Your task to perform on an android device: turn off notifications in google photos Image 0: 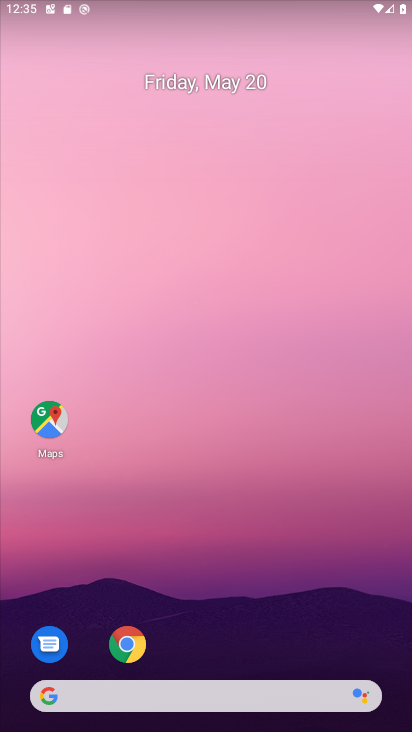
Step 0: click (130, 644)
Your task to perform on an android device: turn off notifications in google photos Image 1: 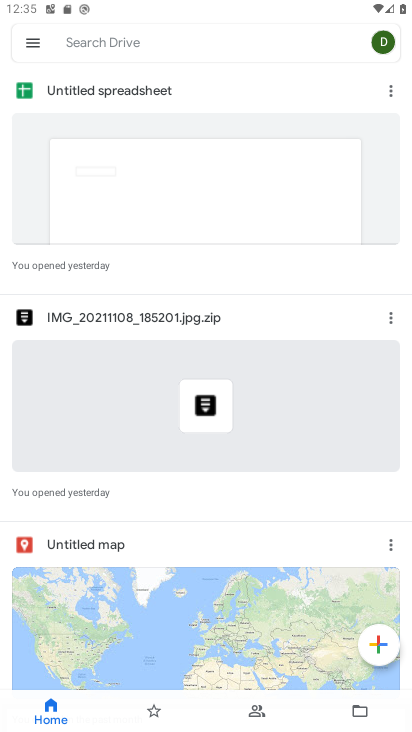
Step 1: press home button
Your task to perform on an android device: turn off notifications in google photos Image 2: 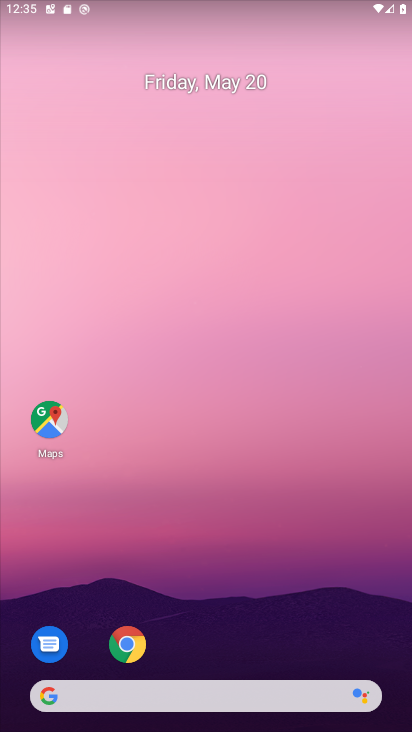
Step 2: drag from (146, 585) to (131, 342)
Your task to perform on an android device: turn off notifications in google photos Image 3: 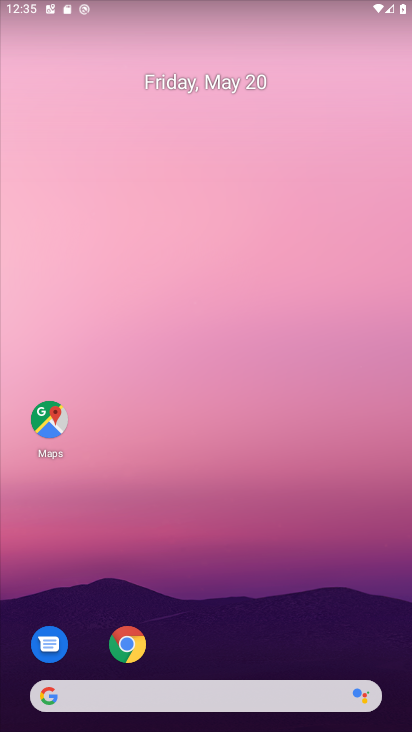
Step 3: drag from (98, 674) to (68, 367)
Your task to perform on an android device: turn off notifications in google photos Image 4: 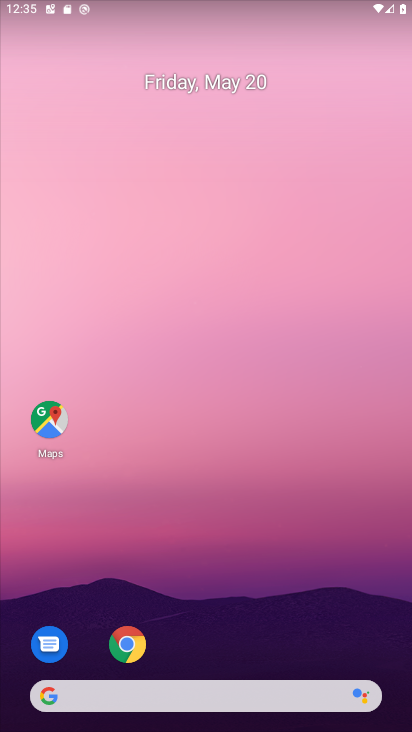
Step 4: drag from (153, 676) to (153, 234)
Your task to perform on an android device: turn off notifications in google photos Image 5: 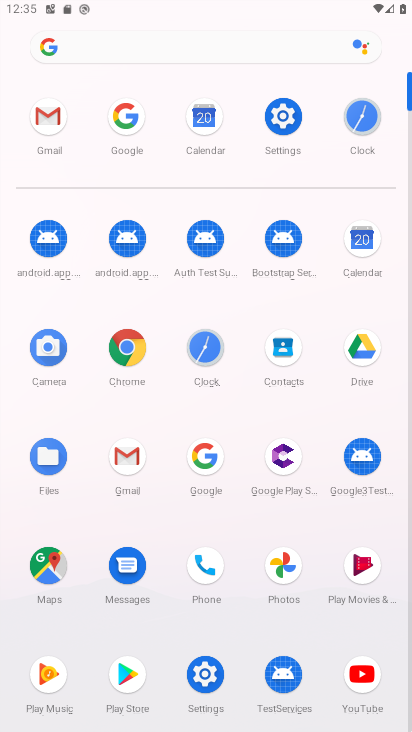
Step 5: click (289, 559)
Your task to perform on an android device: turn off notifications in google photos Image 6: 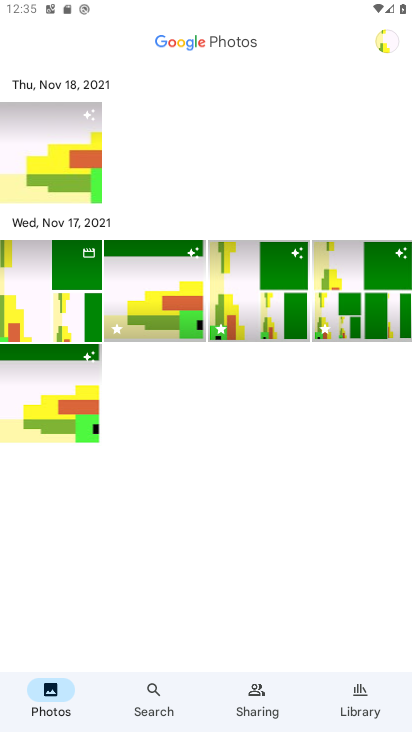
Step 6: click (390, 37)
Your task to perform on an android device: turn off notifications in google photos Image 7: 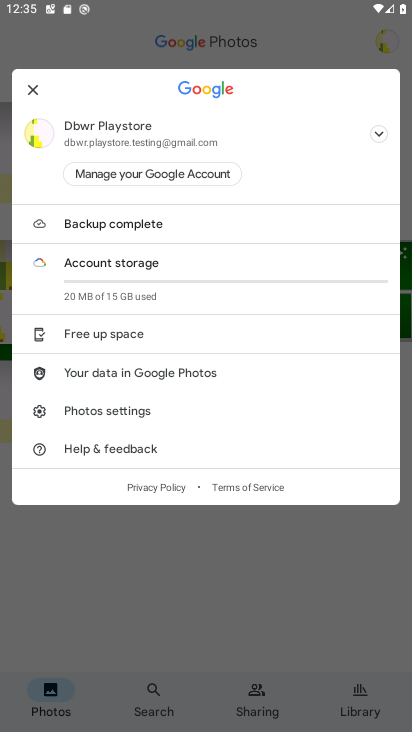
Step 7: click (97, 411)
Your task to perform on an android device: turn off notifications in google photos Image 8: 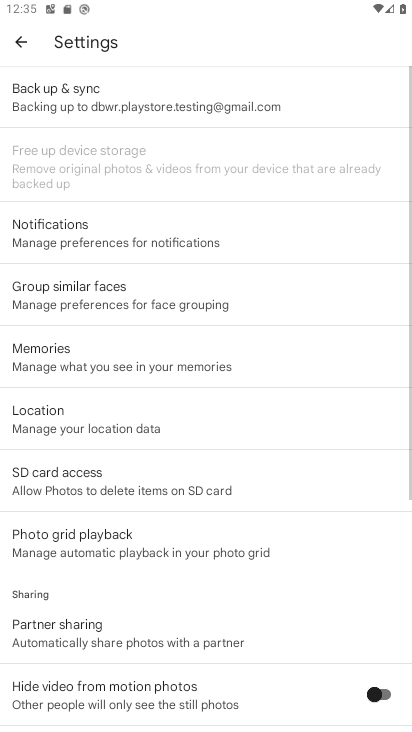
Step 8: click (79, 110)
Your task to perform on an android device: turn off notifications in google photos Image 9: 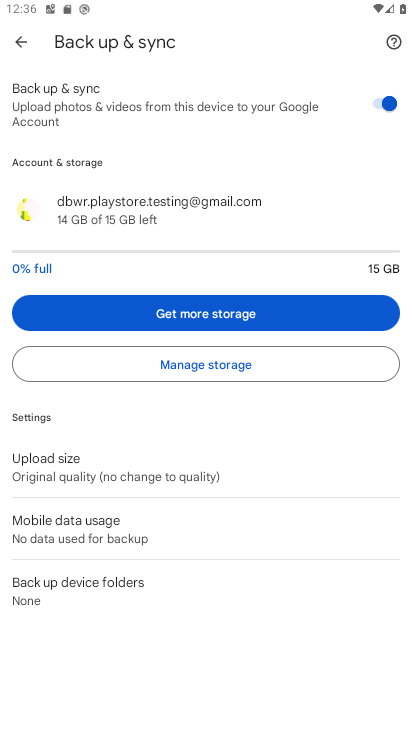
Step 9: click (16, 41)
Your task to perform on an android device: turn off notifications in google photos Image 10: 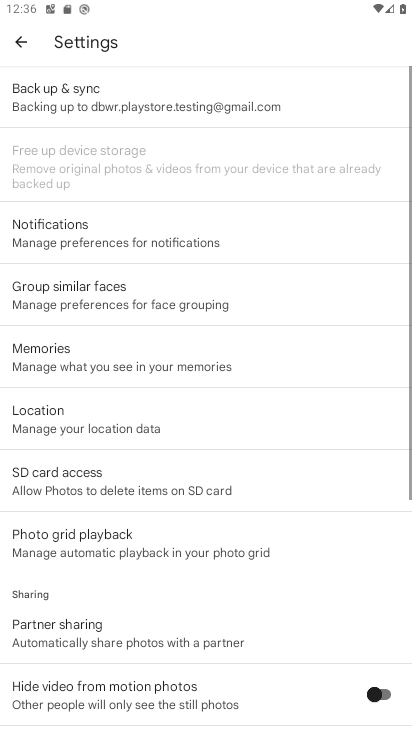
Step 10: click (53, 241)
Your task to perform on an android device: turn off notifications in google photos Image 11: 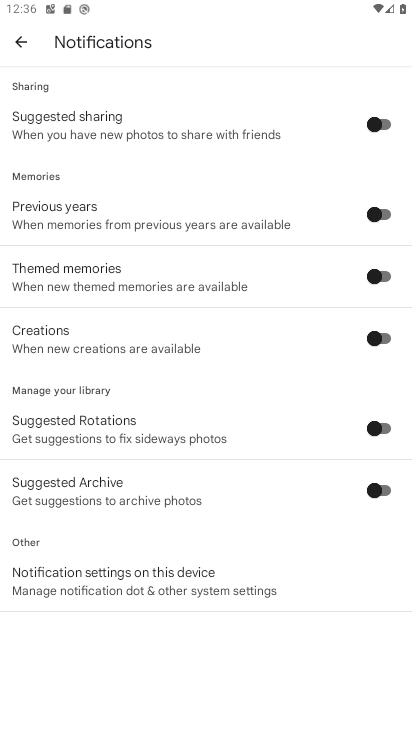
Step 11: click (115, 580)
Your task to perform on an android device: turn off notifications in google photos Image 12: 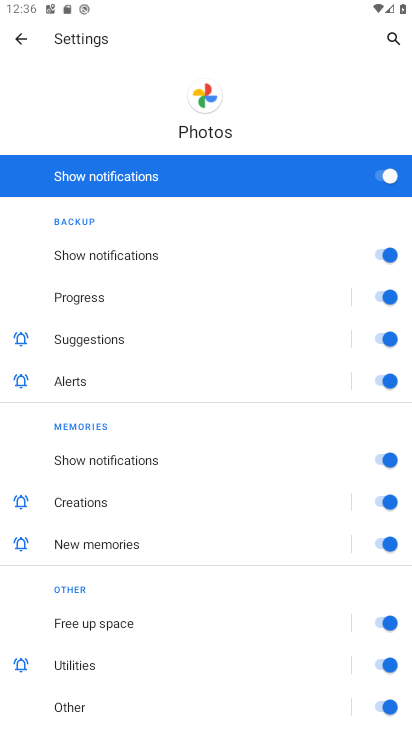
Step 12: click (384, 181)
Your task to perform on an android device: turn off notifications in google photos Image 13: 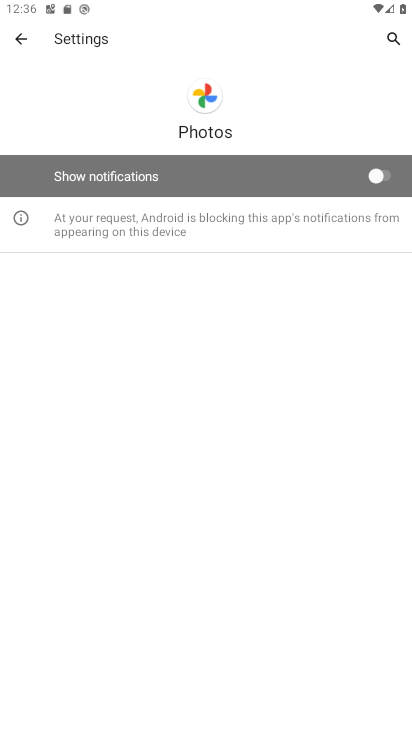
Step 13: task complete